Your task to perform on an android device: Open Chrome and go to settings Image 0: 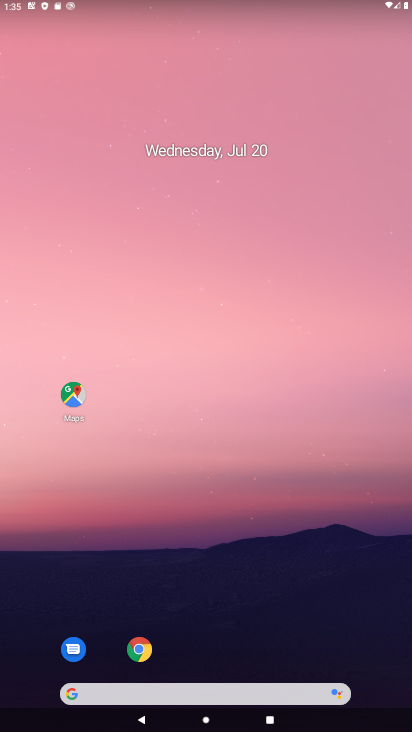
Step 0: click (140, 647)
Your task to perform on an android device: Open Chrome and go to settings Image 1: 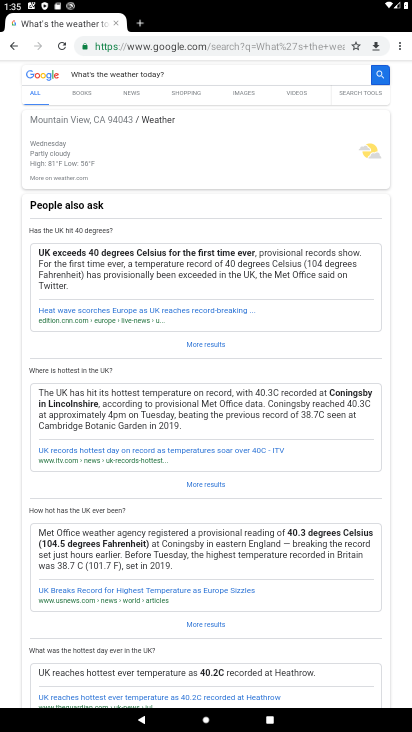
Step 1: task complete